Your task to perform on an android device: Show me the alarms in the clock app Image 0: 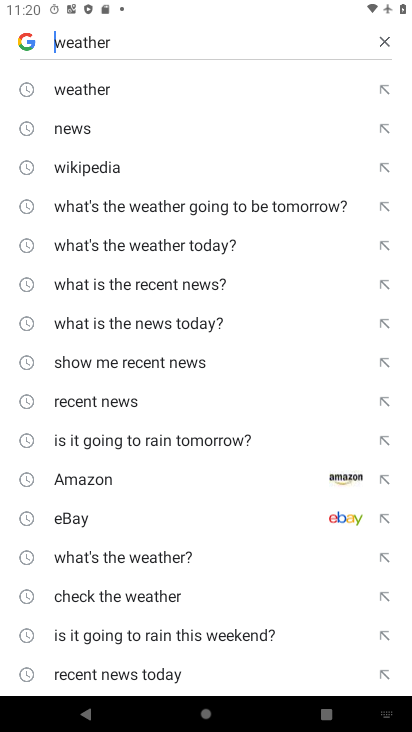
Step 0: press home button
Your task to perform on an android device: Show me the alarms in the clock app Image 1: 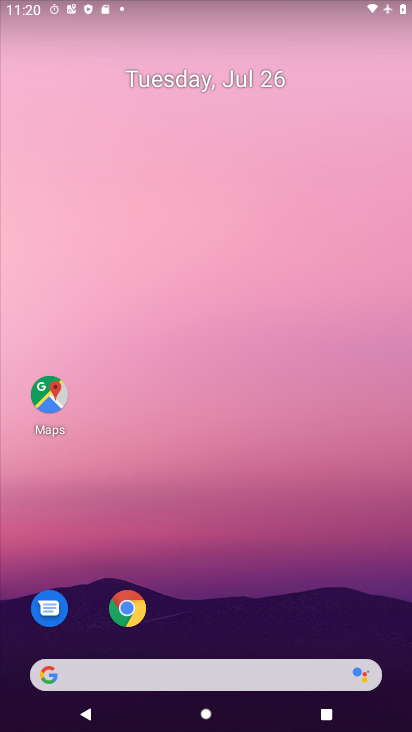
Step 1: drag from (214, 533) to (214, 94)
Your task to perform on an android device: Show me the alarms in the clock app Image 2: 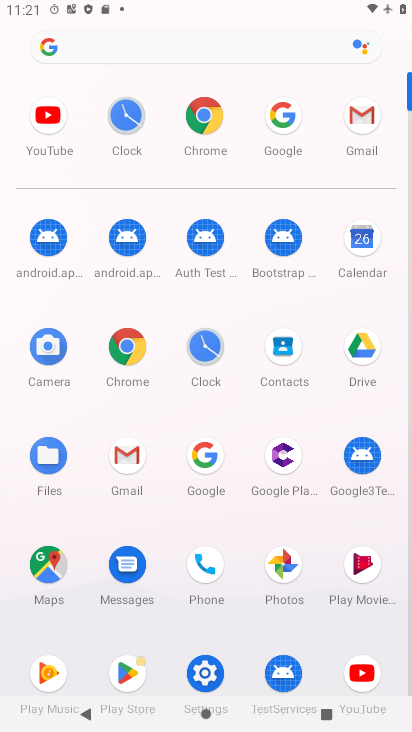
Step 2: click (187, 360)
Your task to perform on an android device: Show me the alarms in the clock app Image 3: 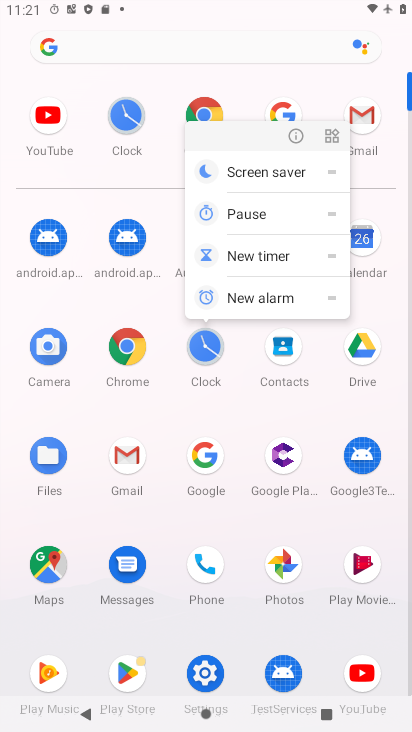
Step 3: click (211, 352)
Your task to perform on an android device: Show me the alarms in the clock app Image 4: 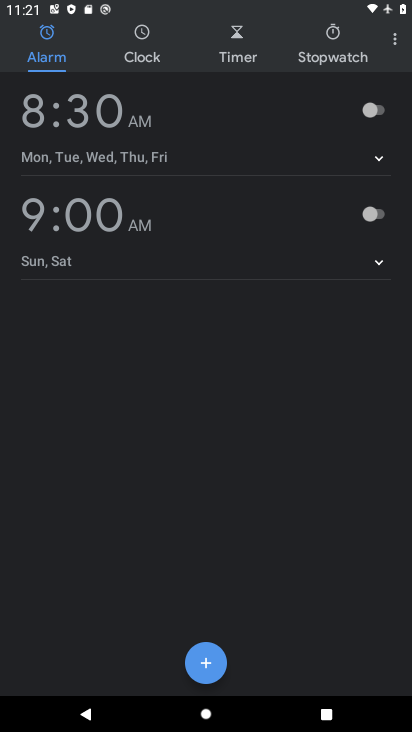
Step 4: task complete